Your task to perform on an android device: find snoozed emails in the gmail app Image 0: 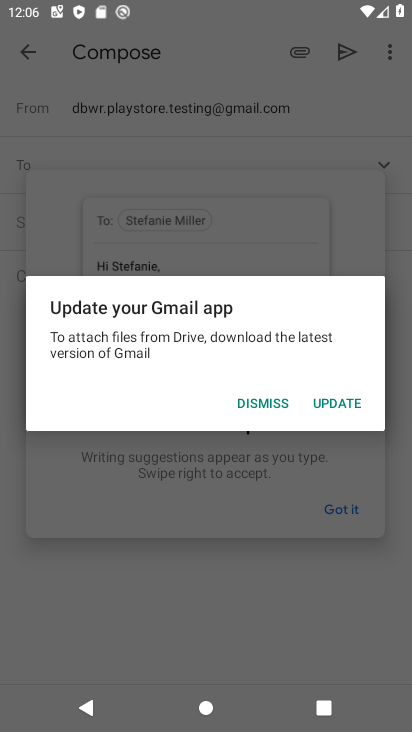
Step 0: press home button
Your task to perform on an android device: find snoozed emails in the gmail app Image 1: 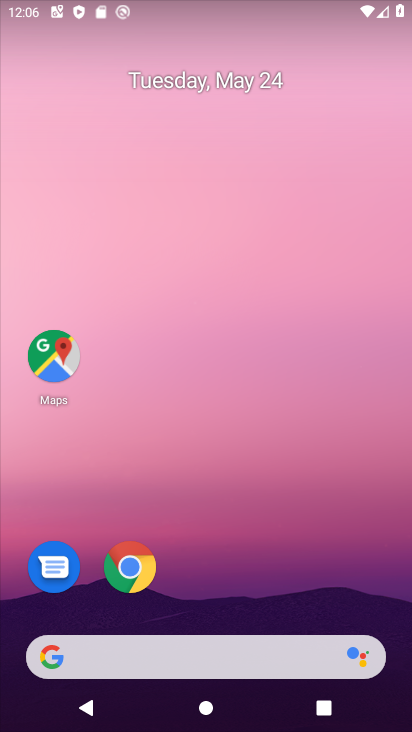
Step 1: drag from (266, 596) to (166, 184)
Your task to perform on an android device: find snoozed emails in the gmail app Image 2: 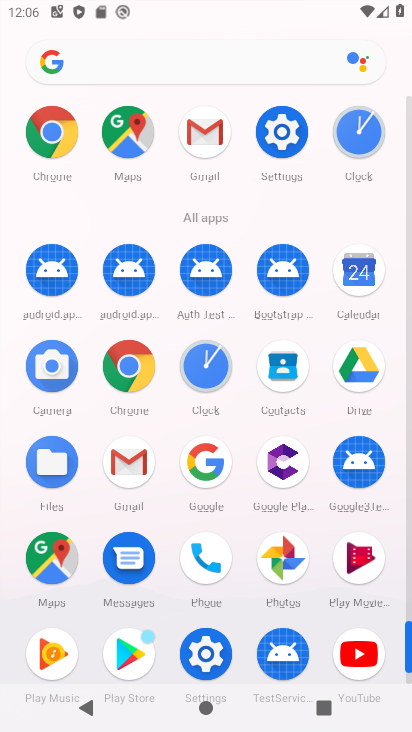
Step 2: click (215, 136)
Your task to perform on an android device: find snoozed emails in the gmail app Image 3: 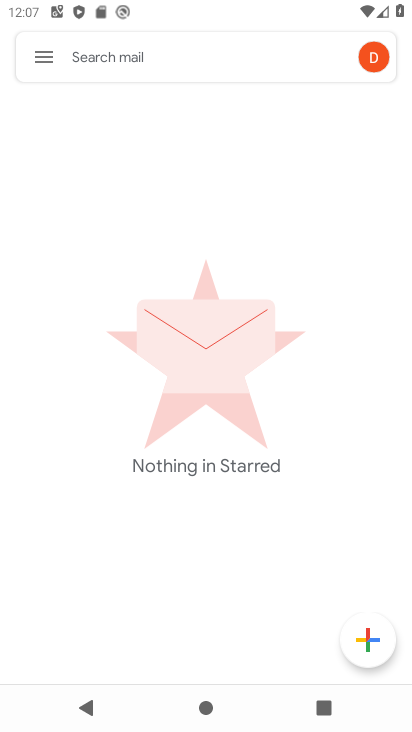
Step 3: click (59, 58)
Your task to perform on an android device: find snoozed emails in the gmail app Image 4: 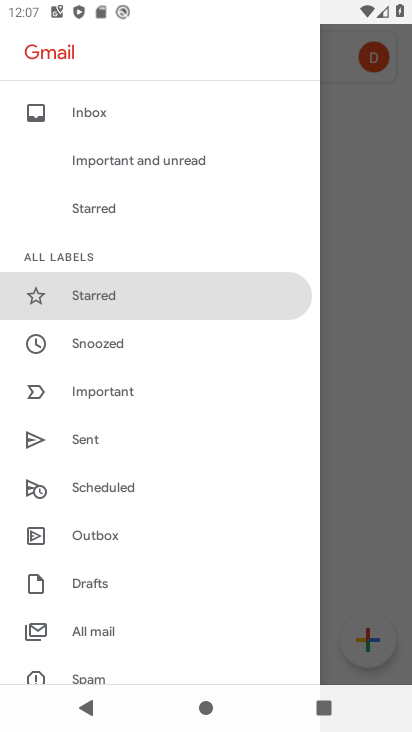
Step 4: click (172, 331)
Your task to perform on an android device: find snoozed emails in the gmail app Image 5: 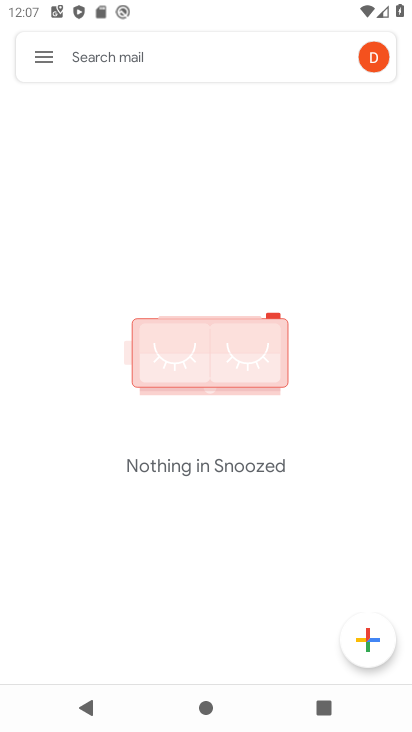
Step 5: task complete